Your task to perform on an android device: Open Wikipedia Image 0: 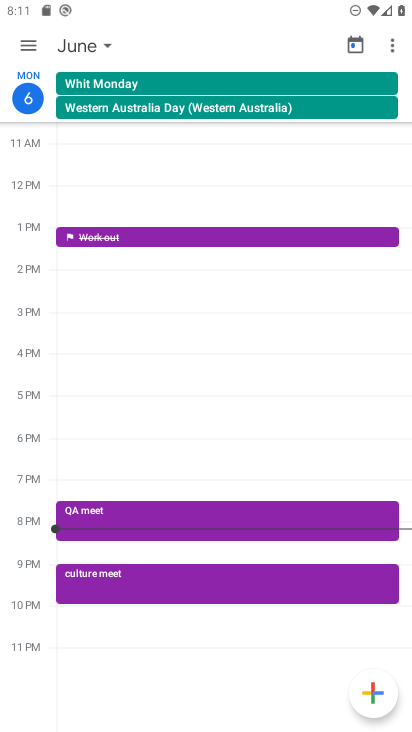
Step 0: press home button
Your task to perform on an android device: Open Wikipedia Image 1: 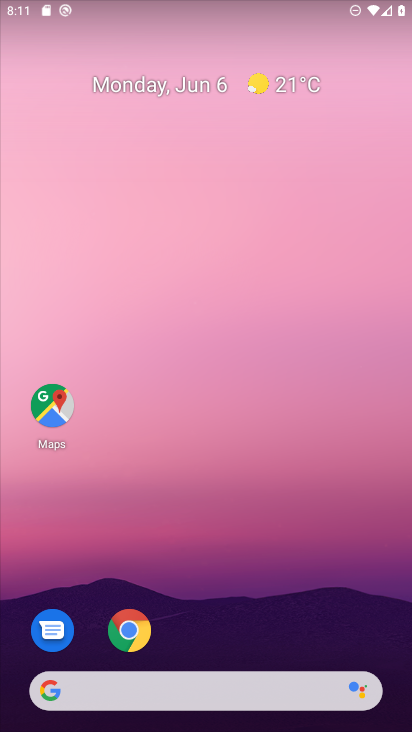
Step 1: click (129, 648)
Your task to perform on an android device: Open Wikipedia Image 2: 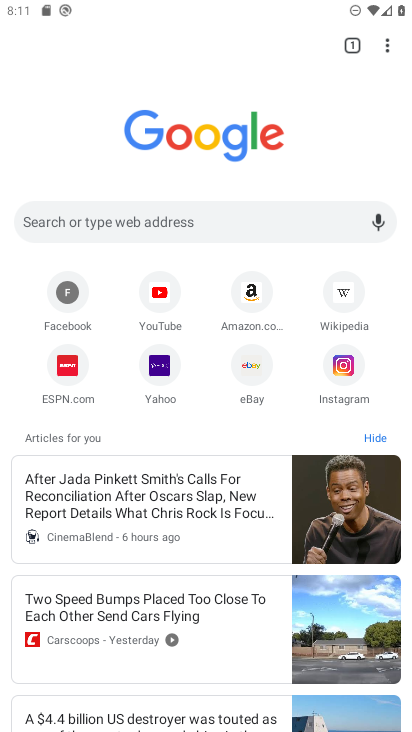
Step 2: click (348, 300)
Your task to perform on an android device: Open Wikipedia Image 3: 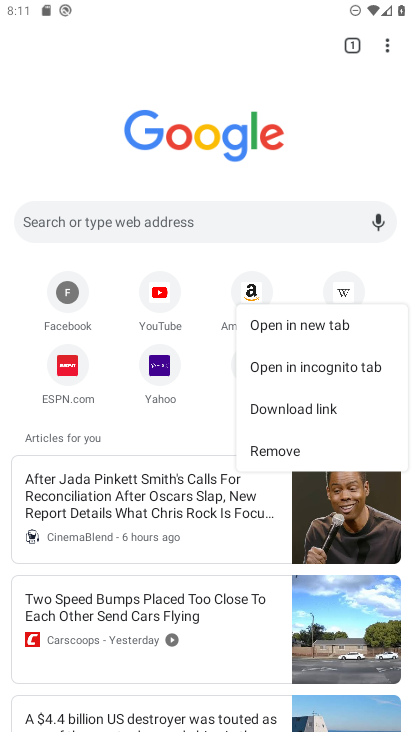
Step 3: click (348, 288)
Your task to perform on an android device: Open Wikipedia Image 4: 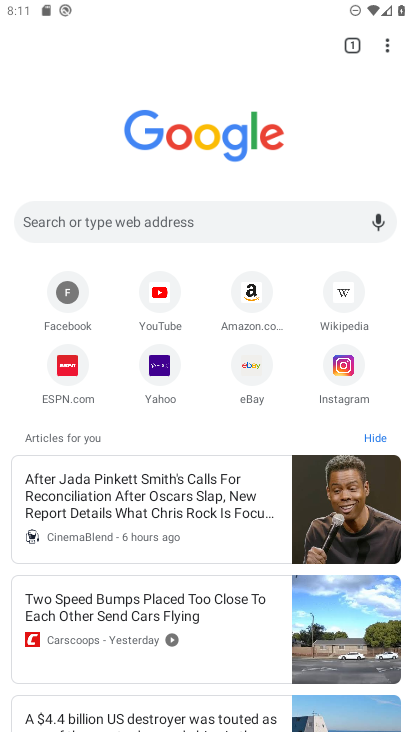
Step 4: click (347, 287)
Your task to perform on an android device: Open Wikipedia Image 5: 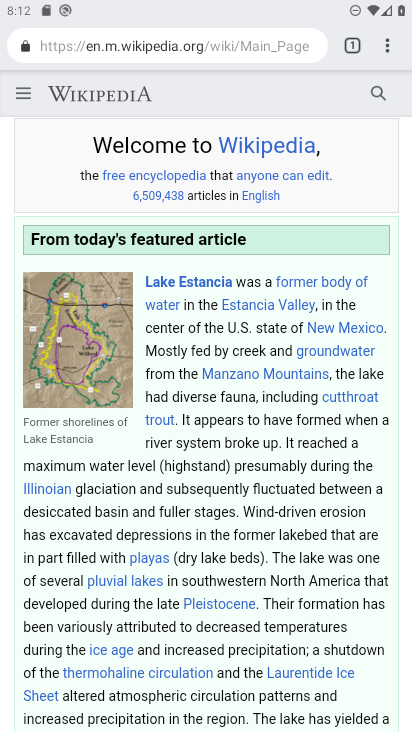
Step 5: task complete